Your task to perform on an android device: Open the web browser Image 0: 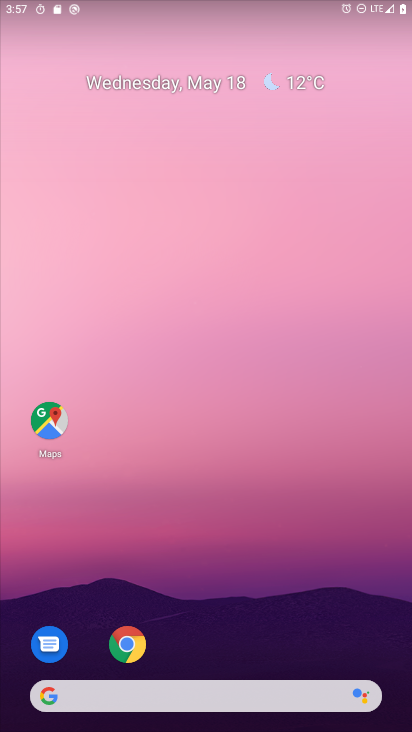
Step 0: click (132, 635)
Your task to perform on an android device: Open the web browser Image 1: 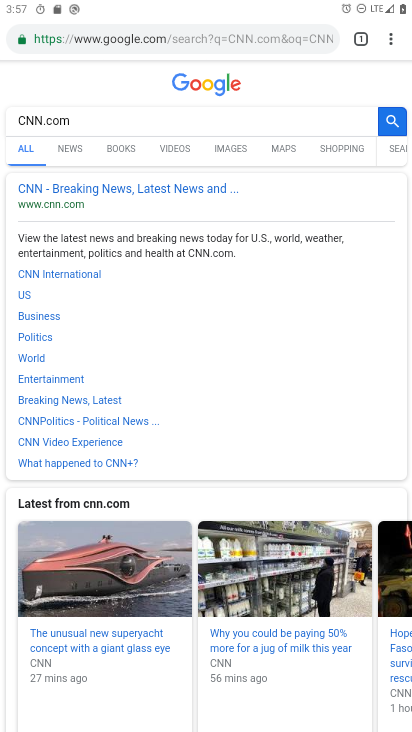
Step 1: task complete